Your task to perform on an android device: clear history in the chrome app Image 0: 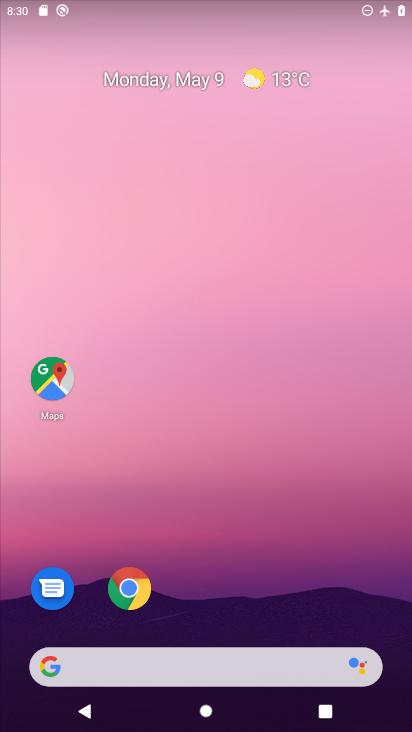
Step 0: click (131, 596)
Your task to perform on an android device: clear history in the chrome app Image 1: 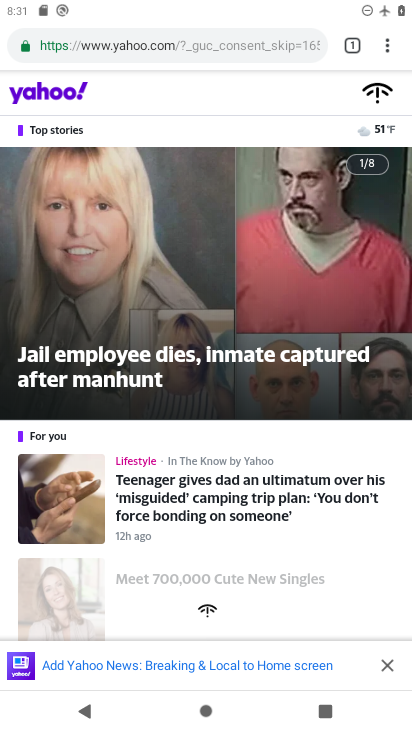
Step 1: click (389, 47)
Your task to perform on an android device: clear history in the chrome app Image 2: 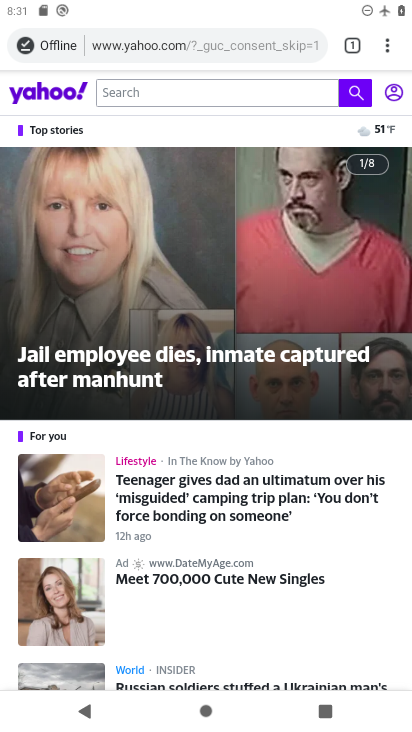
Step 2: click (380, 47)
Your task to perform on an android device: clear history in the chrome app Image 3: 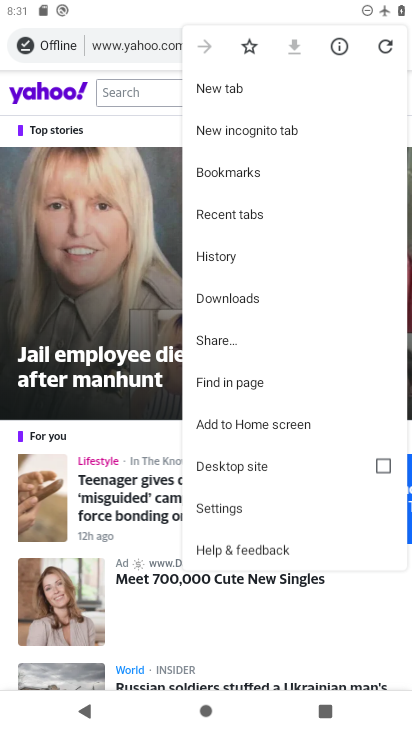
Step 3: click (380, 47)
Your task to perform on an android device: clear history in the chrome app Image 4: 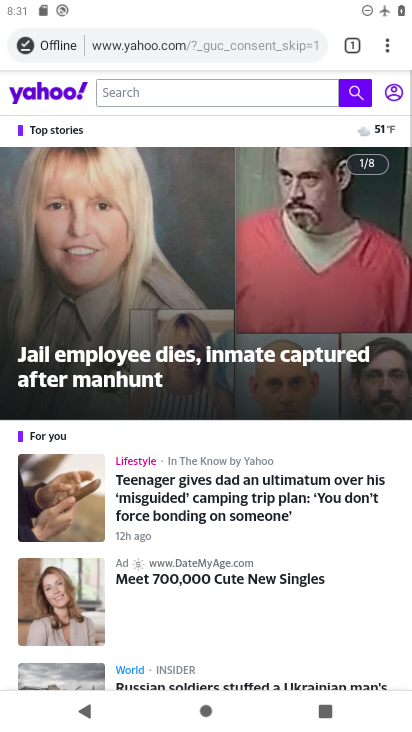
Step 4: click (387, 50)
Your task to perform on an android device: clear history in the chrome app Image 5: 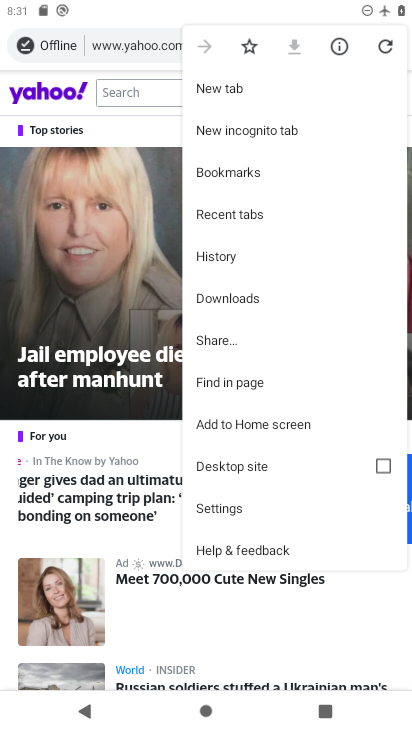
Step 5: click (249, 506)
Your task to perform on an android device: clear history in the chrome app Image 6: 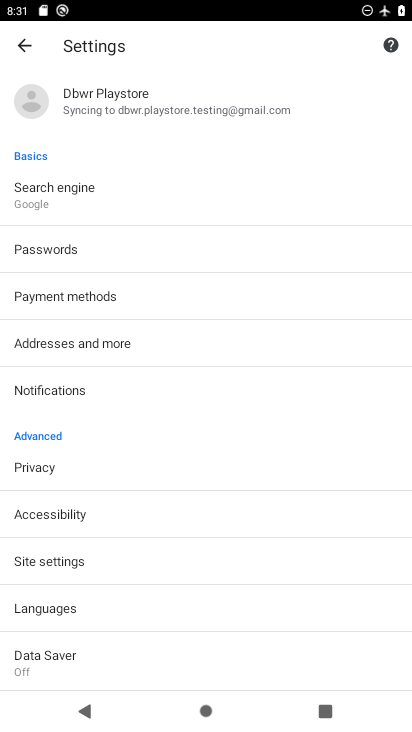
Step 6: drag from (151, 534) to (166, 195)
Your task to perform on an android device: clear history in the chrome app Image 7: 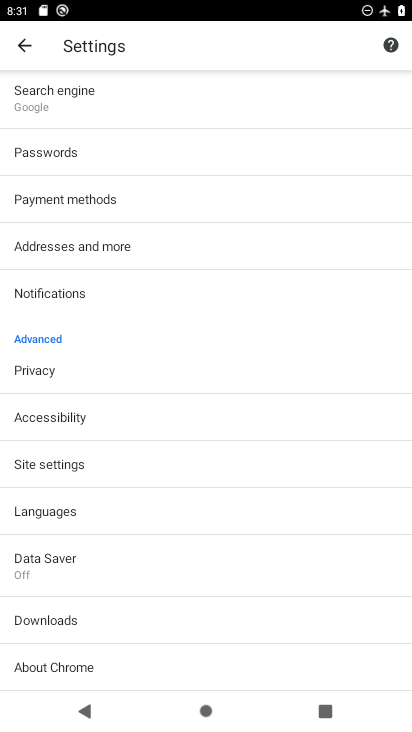
Step 7: drag from (167, 560) to (207, 294)
Your task to perform on an android device: clear history in the chrome app Image 8: 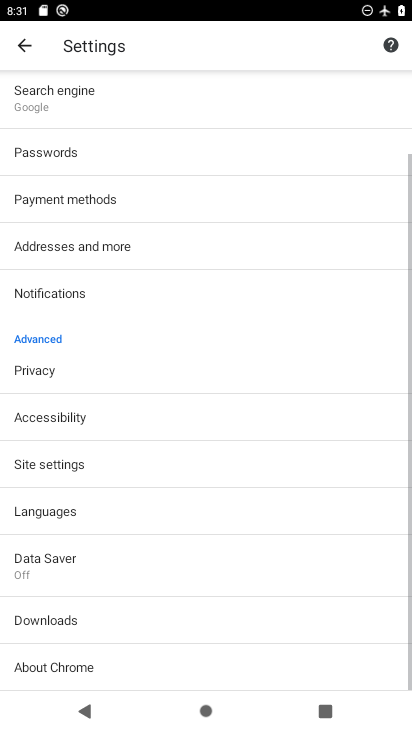
Step 8: drag from (207, 294) to (199, 687)
Your task to perform on an android device: clear history in the chrome app Image 9: 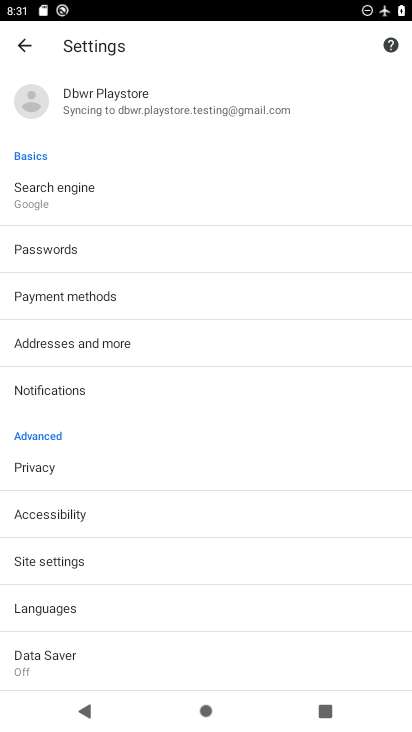
Step 9: click (27, 51)
Your task to perform on an android device: clear history in the chrome app Image 10: 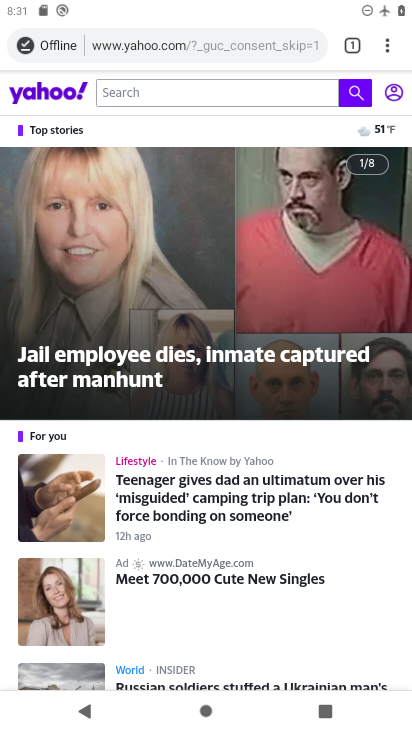
Step 10: click (396, 31)
Your task to perform on an android device: clear history in the chrome app Image 11: 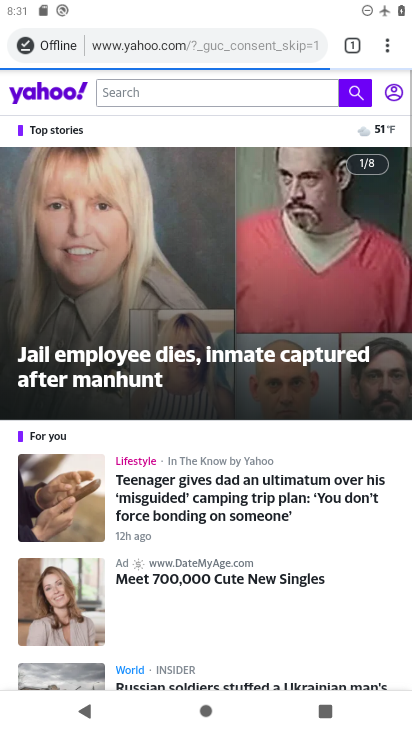
Step 11: click (396, 31)
Your task to perform on an android device: clear history in the chrome app Image 12: 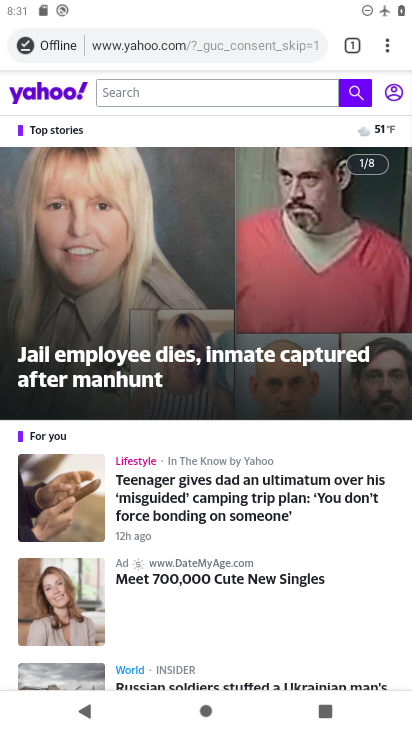
Step 12: click (396, 31)
Your task to perform on an android device: clear history in the chrome app Image 13: 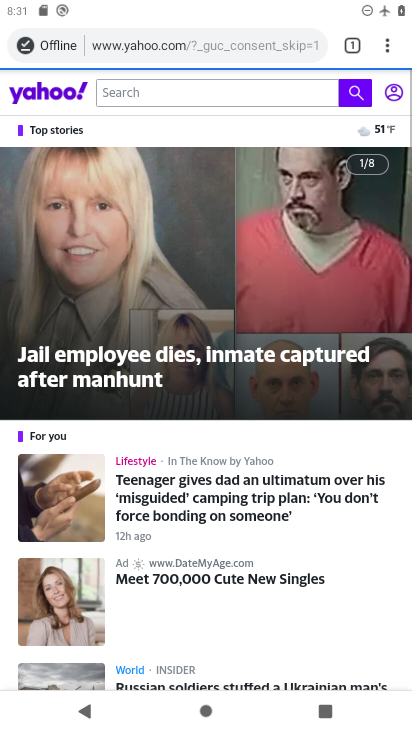
Step 13: click (396, 31)
Your task to perform on an android device: clear history in the chrome app Image 14: 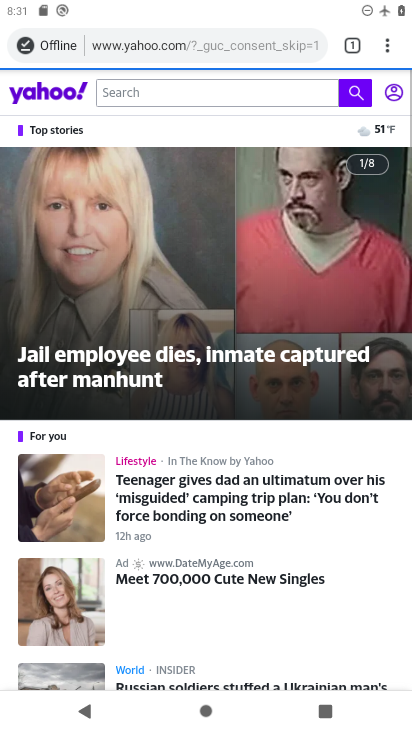
Step 14: click (396, 31)
Your task to perform on an android device: clear history in the chrome app Image 15: 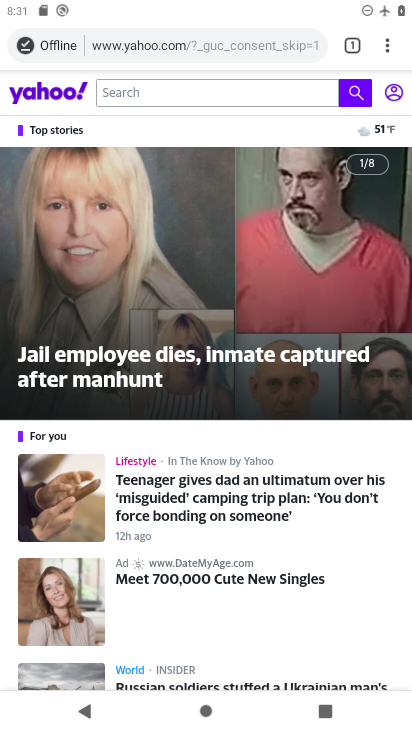
Step 15: click (386, 41)
Your task to perform on an android device: clear history in the chrome app Image 16: 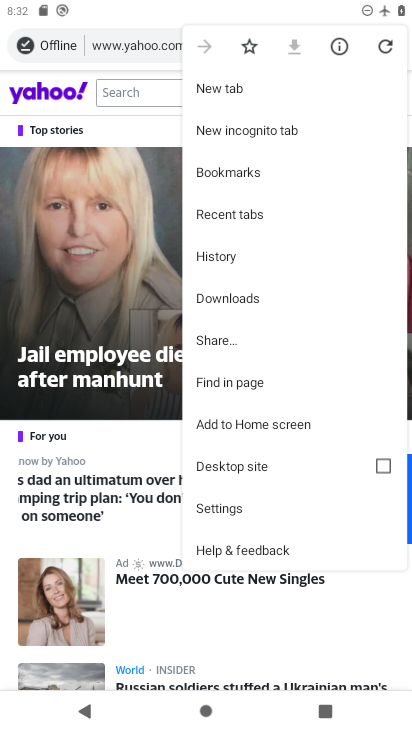
Step 16: click (246, 266)
Your task to perform on an android device: clear history in the chrome app Image 17: 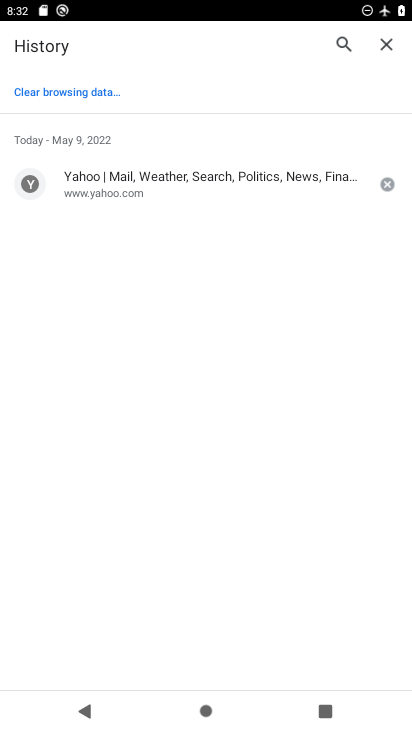
Step 17: click (88, 96)
Your task to perform on an android device: clear history in the chrome app Image 18: 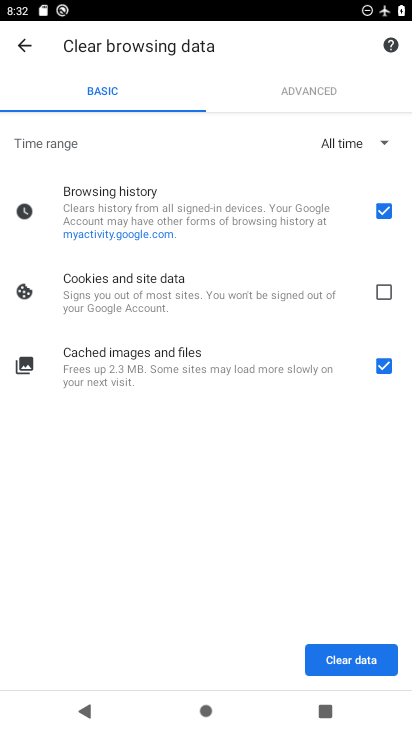
Step 18: click (391, 666)
Your task to perform on an android device: clear history in the chrome app Image 19: 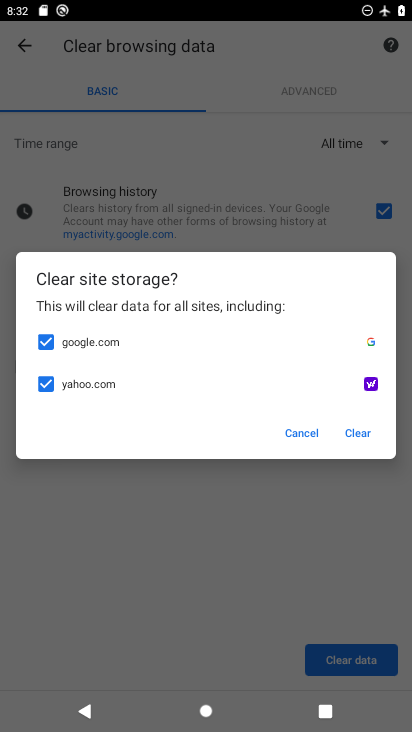
Step 19: click (364, 437)
Your task to perform on an android device: clear history in the chrome app Image 20: 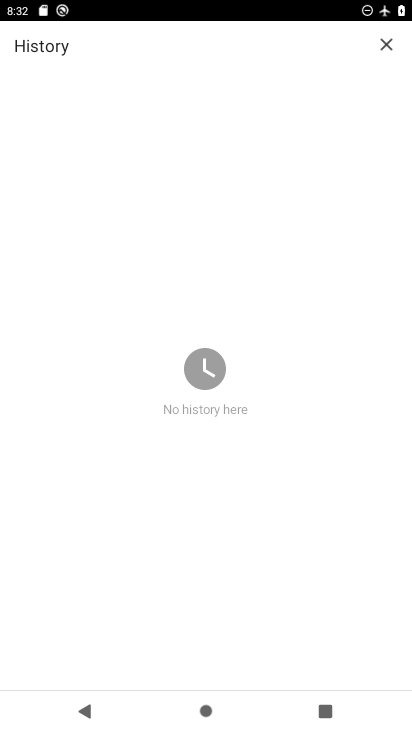
Step 20: task complete